Your task to perform on an android device: toggle data saver in the chrome app Image 0: 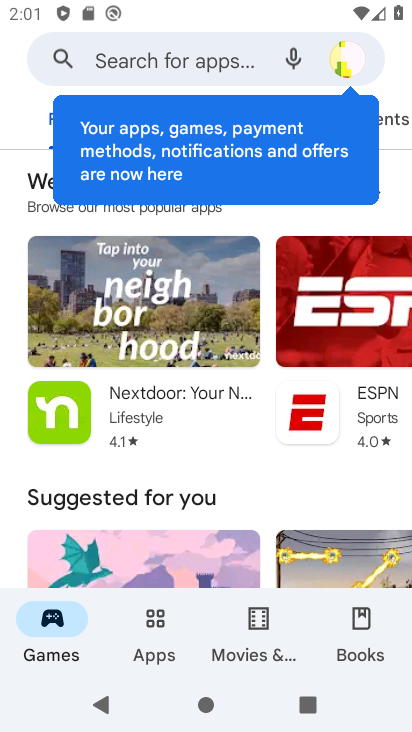
Step 0: press home button
Your task to perform on an android device: toggle data saver in the chrome app Image 1: 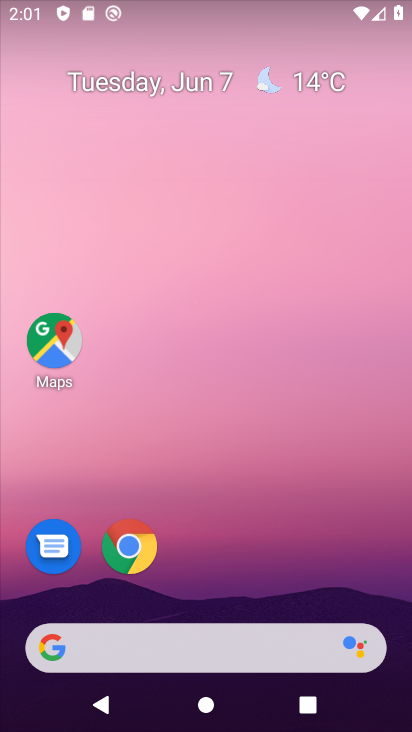
Step 1: click (141, 562)
Your task to perform on an android device: toggle data saver in the chrome app Image 2: 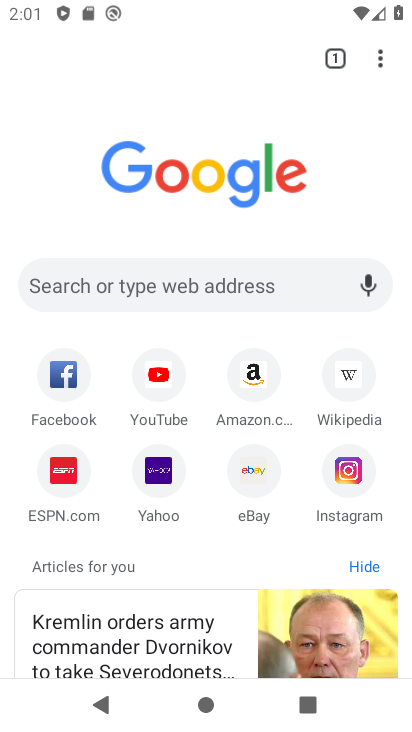
Step 2: click (385, 53)
Your task to perform on an android device: toggle data saver in the chrome app Image 3: 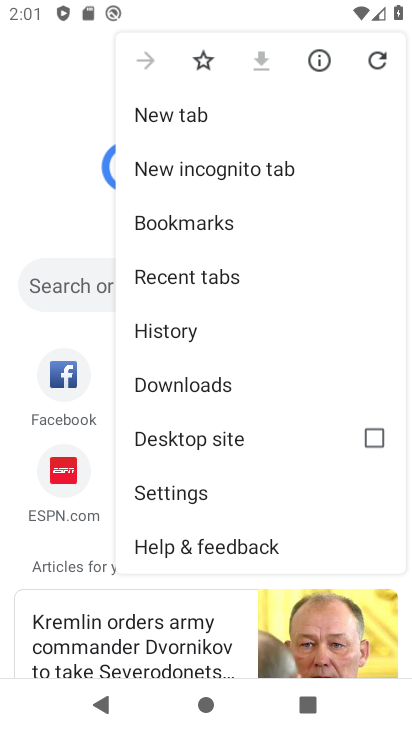
Step 3: click (231, 481)
Your task to perform on an android device: toggle data saver in the chrome app Image 4: 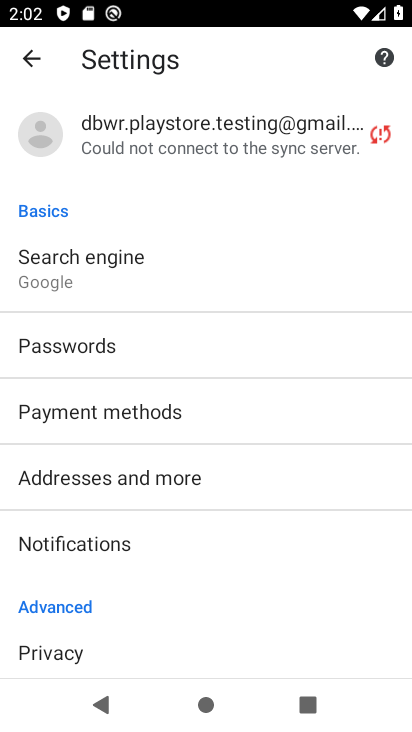
Step 4: drag from (141, 627) to (160, 214)
Your task to perform on an android device: toggle data saver in the chrome app Image 5: 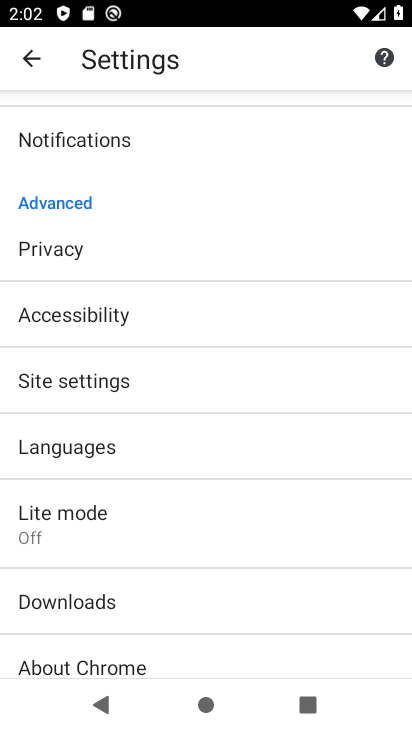
Step 5: click (99, 395)
Your task to perform on an android device: toggle data saver in the chrome app Image 6: 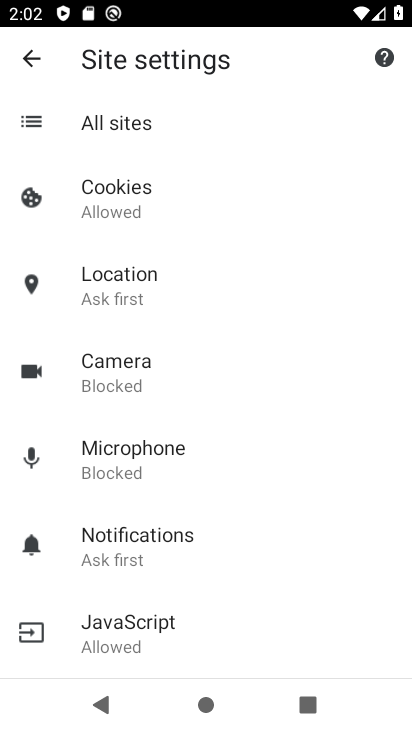
Step 6: click (40, 68)
Your task to perform on an android device: toggle data saver in the chrome app Image 7: 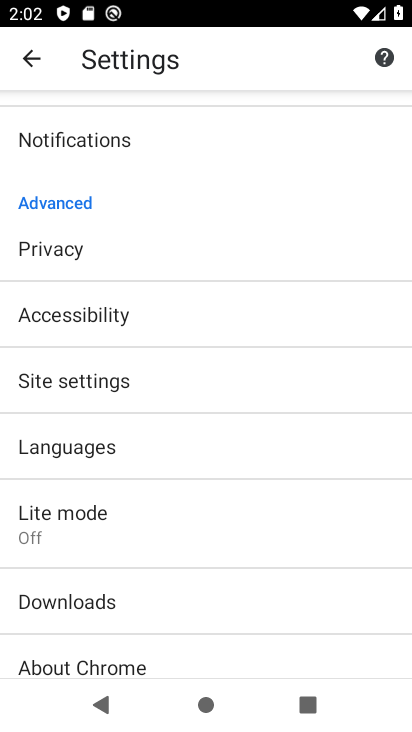
Step 7: click (152, 528)
Your task to perform on an android device: toggle data saver in the chrome app Image 8: 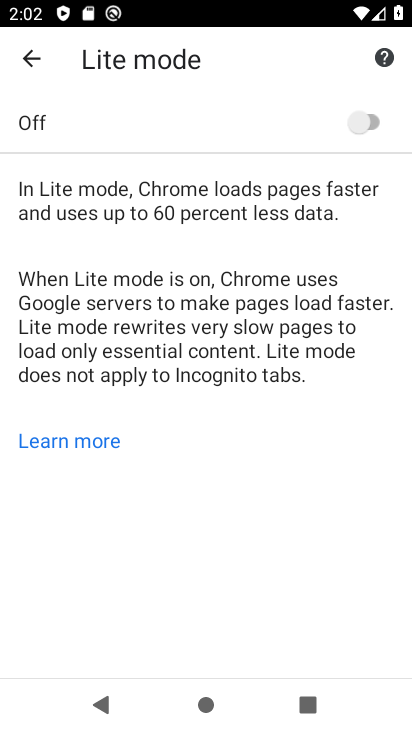
Step 8: click (382, 120)
Your task to perform on an android device: toggle data saver in the chrome app Image 9: 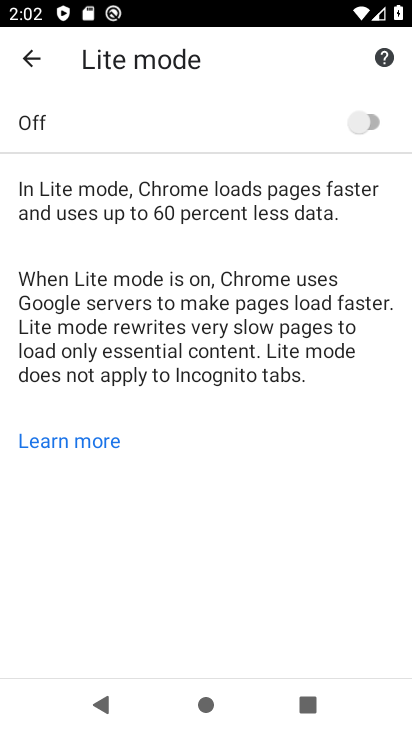
Step 9: click (382, 120)
Your task to perform on an android device: toggle data saver in the chrome app Image 10: 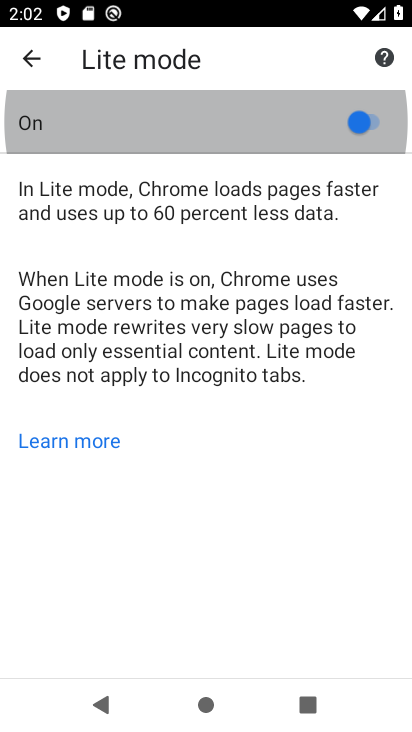
Step 10: click (382, 120)
Your task to perform on an android device: toggle data saver in the chrome app Image 11: 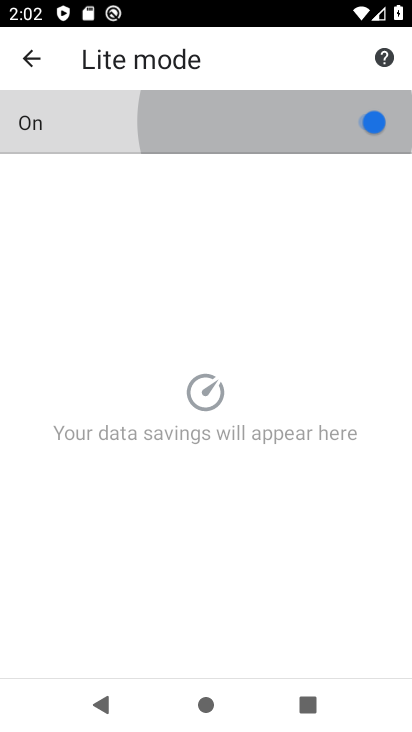
Step 11: click (382, 120)
Your task to perform on an android device: toggle data saver in the chrome app Image 12: 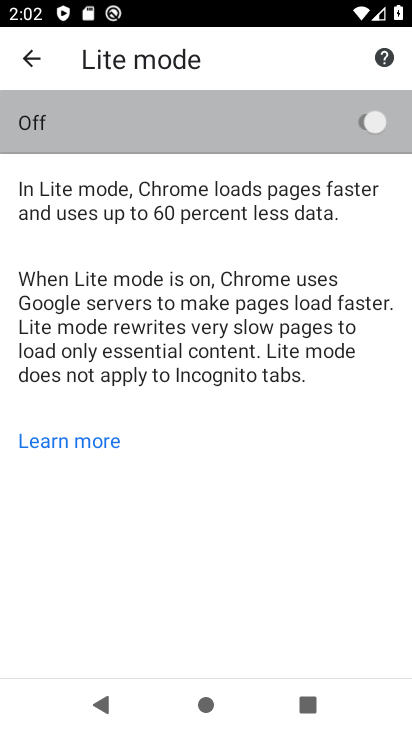
Step 12: click (382, 120)
Your task to perform on an android device: toggle data saver in the chrome app Image 13: 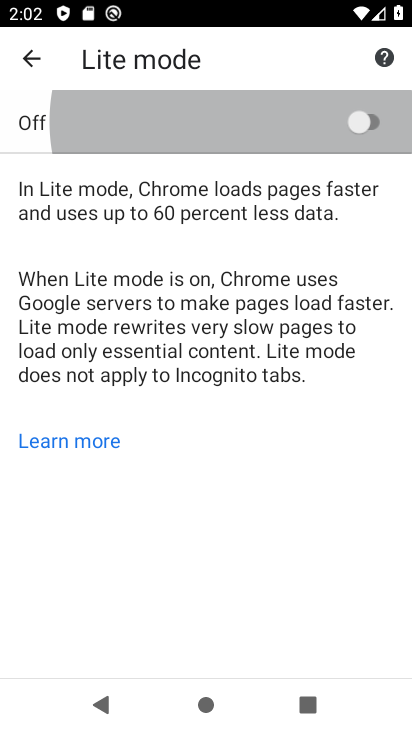
Step 13: click (382, 120)
Your task to perform on an android device: toggle data saver in the chrome app Image 14: 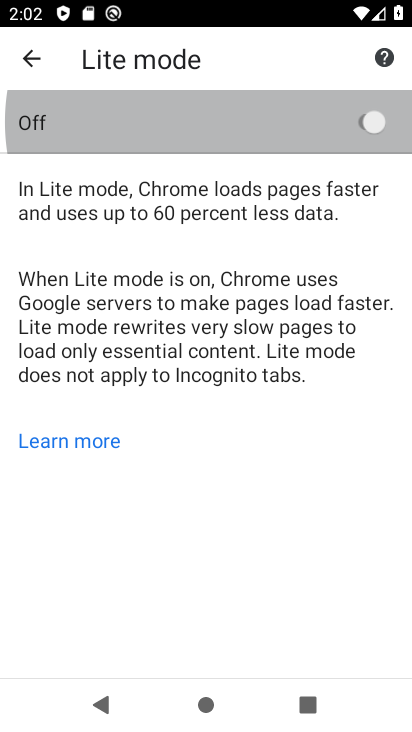
Step 14: click (382, 120)
Your task to perform on an android device: toggle data saver in the chrome app Image 15: 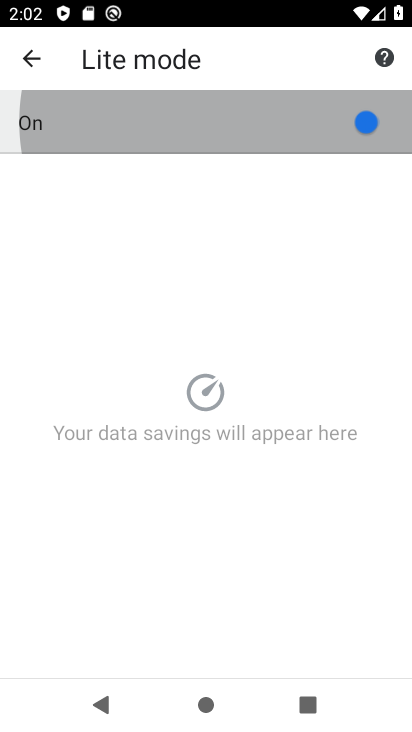
Step 15: click (382, 120)
Your task to perform on an android device: toggle data saver in the chrome app Image 16: 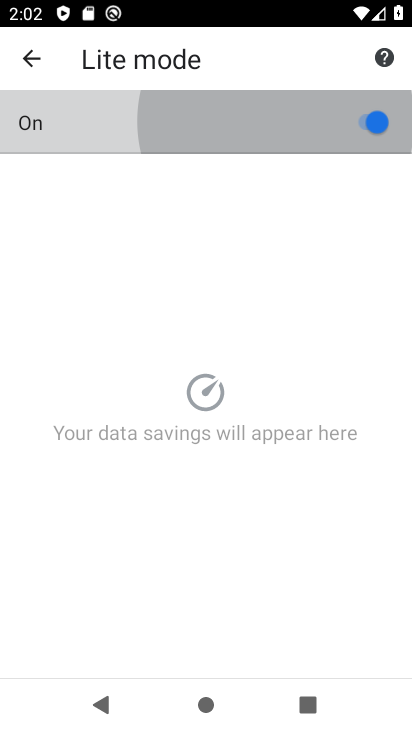
Step 16: click (382, 120)
Your task to perform on an android device: toggle data saver in the chrome app Image 17: 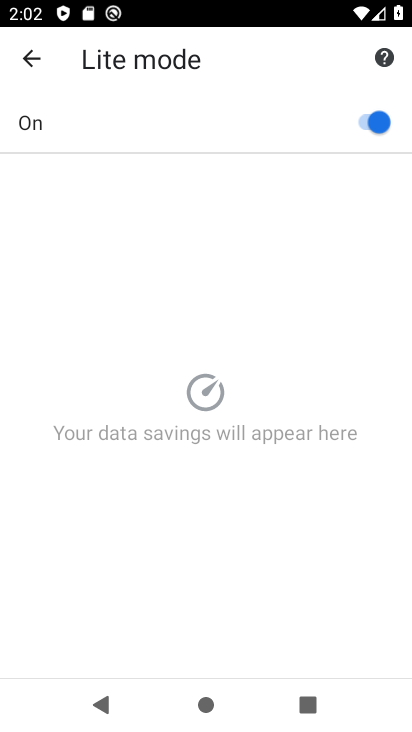
Step 17: click (382, 120)
Your task to perform on an android device: toggle data saver in the chrome app Image 18: 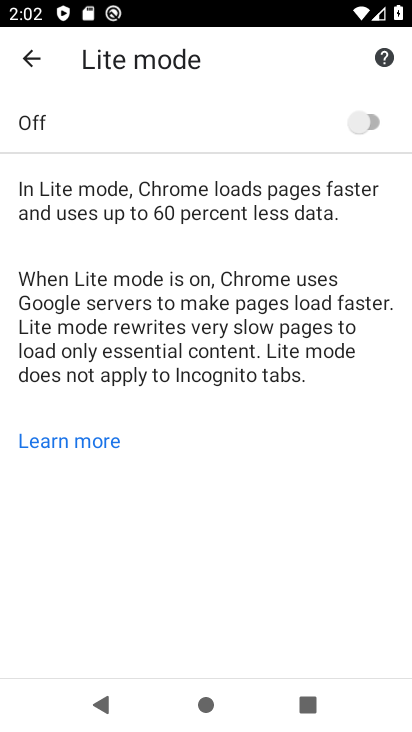
Step 18: task complete